Your task to perform on an android device: change your default location settings in chrome Image 0: 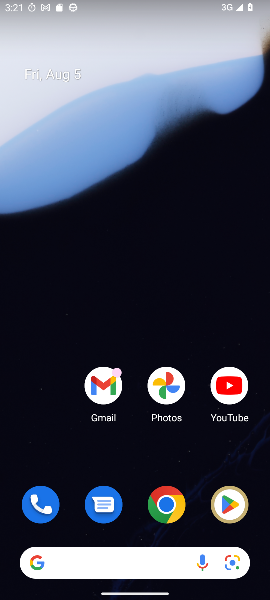
Step 0: click (159, 504)
Your task to perform on an android device: change your default location settings in chrome Image 1: 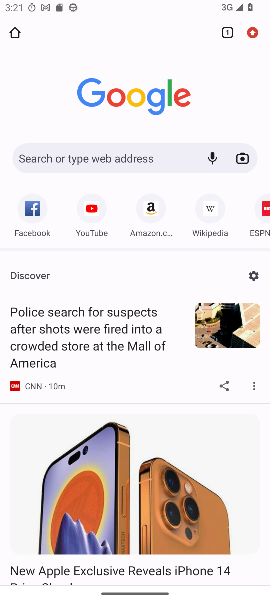
Step 1: click (247, 34)
Your task to perform on an android device: change your default location settings in chrome Image 2: 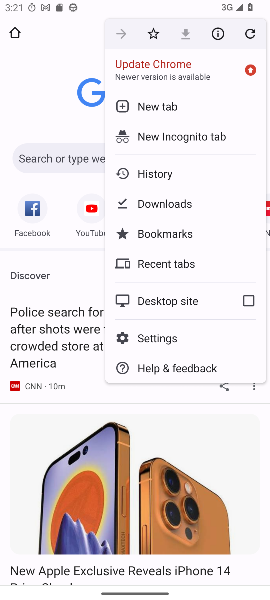
Step 2: drag from (185, 316) to (193, 88)
Your task to perform on an android device: change your default location settings in chrome Image 3: 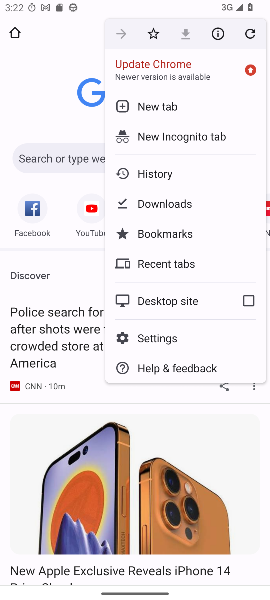
Step 3: click (165, 339)
Your task to perform on an android device: change your default location settings in chrome Image 4: 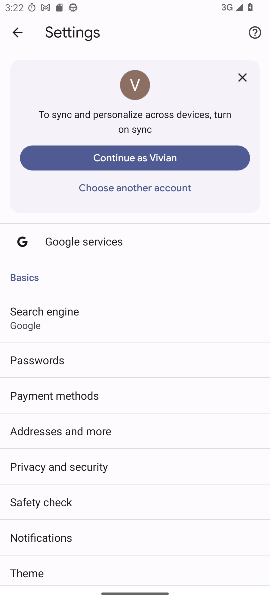
Step 4: drag from (90, 533) to (130, 175)
Your task to perform on an android device: change your default location settings in chrome Image 5: 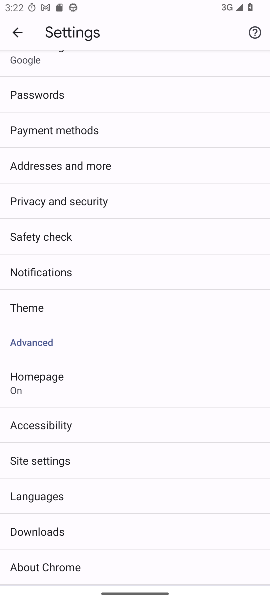
Step 5: drag from (110, 536) to (158, 130)
Your task to perform on an android device: change your default location settings in chrome Image 6: 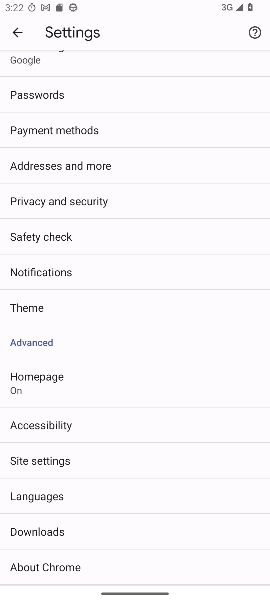
Step 6: click (49, 460)
Your task to perform on an android device: change your default location settings in chrome Image 7: 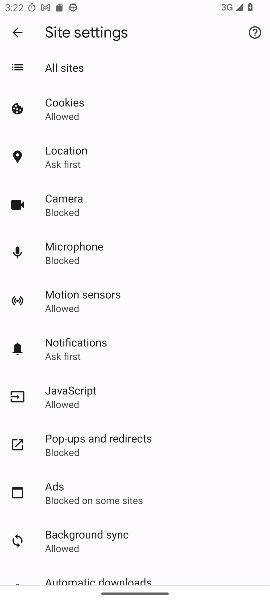
Step 7: click (58, 155)
Your task to perform on an android device: change your default location settings in chrome Image 8: 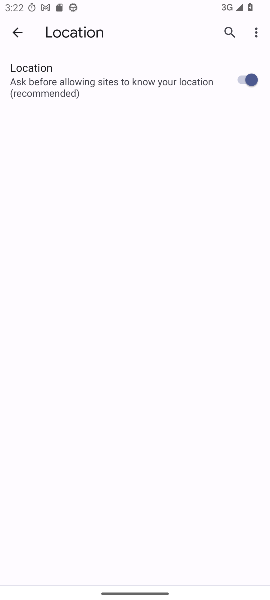
Step 8: task complete